Your task to perform on an android device: Open maps Image 0: 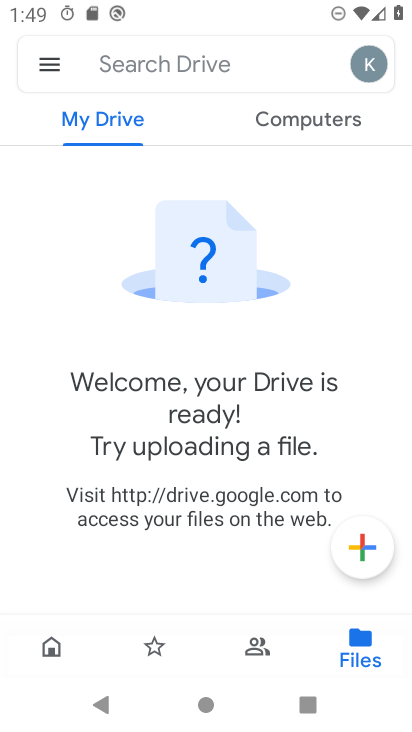
Step 0: press home button
Your task to perform on an android device: Open maps Image 1: 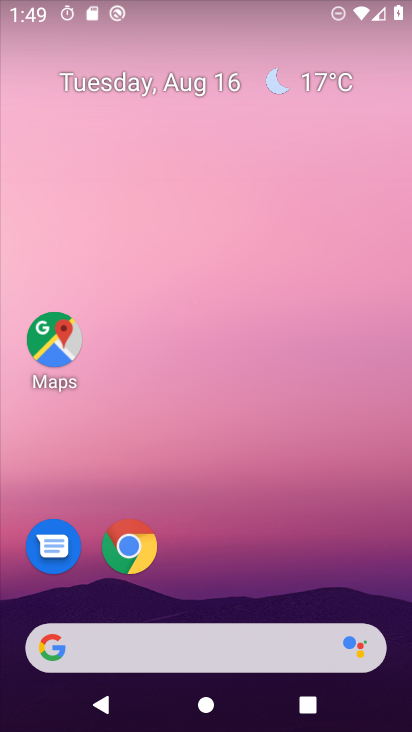
Step 1: drag from (202, 571) to (204, 153)
Your task to perform on an android device: Open maps Image 2: 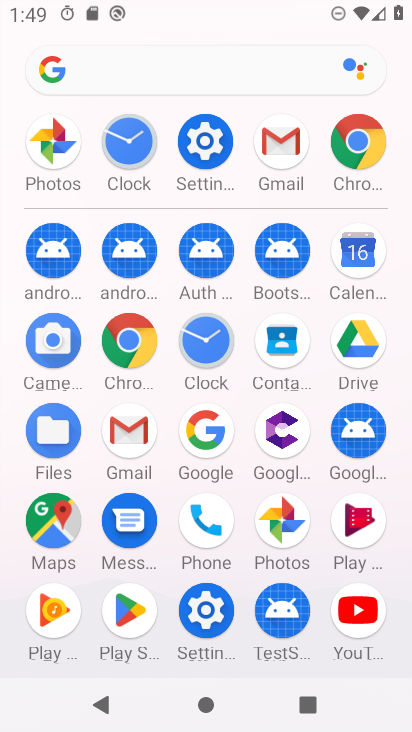
Step 2: click (54, 519)
Your task to perform on an android device: Open maps Image 3: 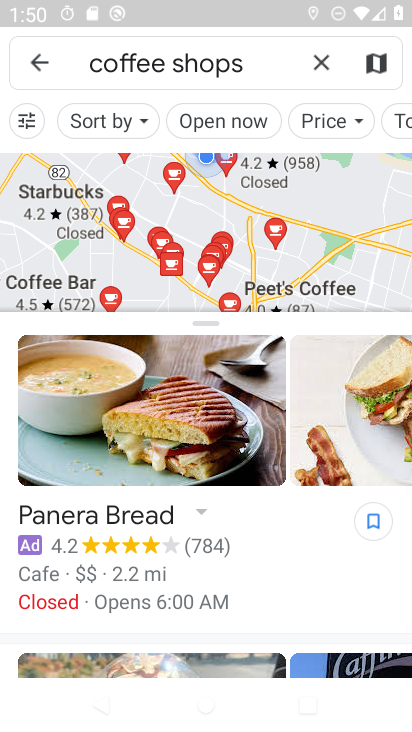
Step 3: task complete